Your task to perform on an android device: read, delete, or share a saved page in the chrome app Image 0: 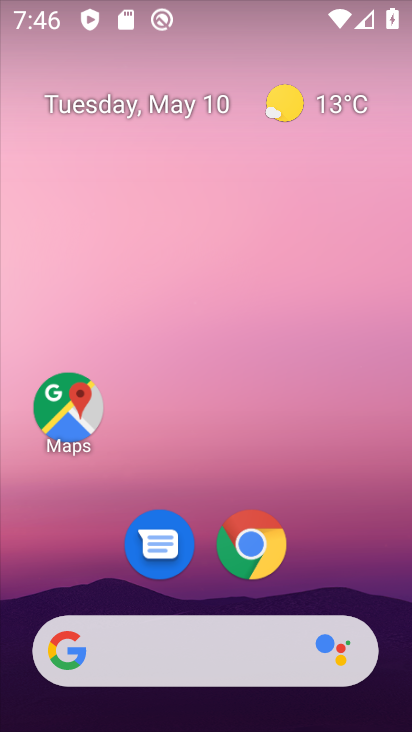
Step 0: click (259, 535)
Your task to perform on an android device: read, delete, or share a saved page in the chrome app Image 1: 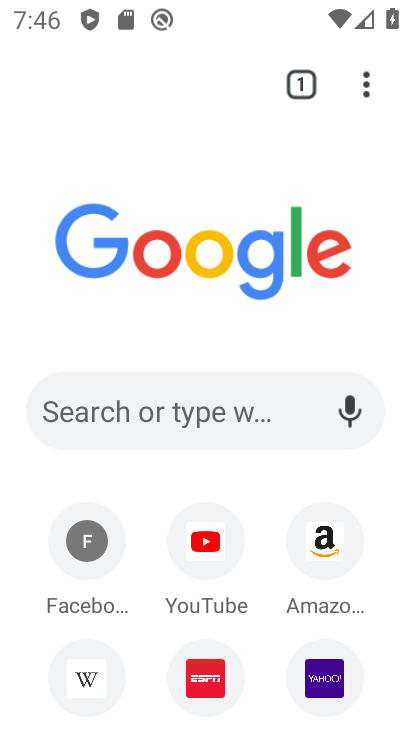
Step 1: click (366, 77)
Your task to perform on an android device: read, delete, or share a saved page in the chrome app Image 2: 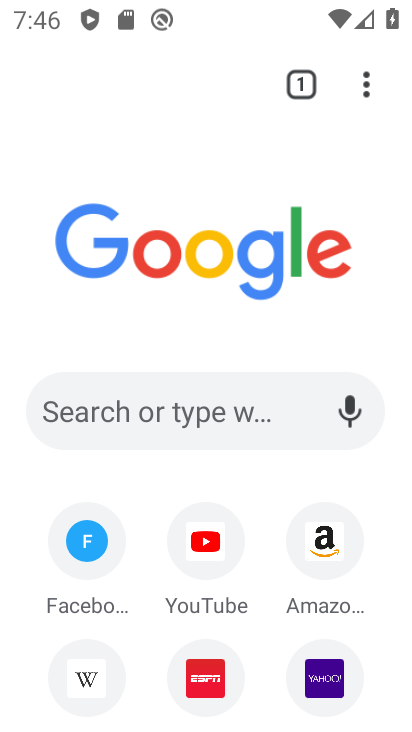
Step 2: click (373, 83)
Your task to perform on an android device: read, delete, or share a saved page in the chrome app Image 3: 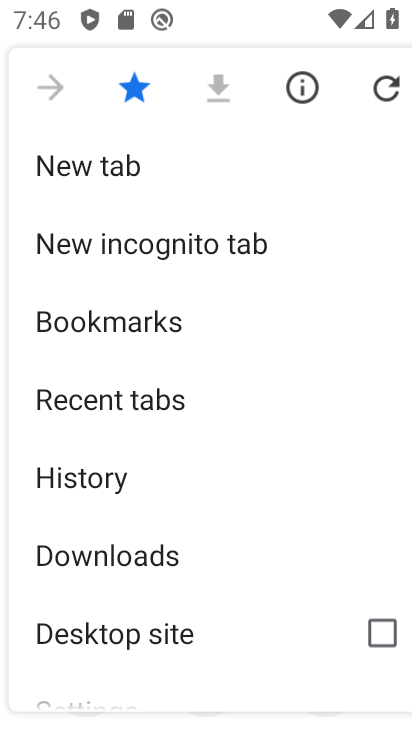
Step 3: click (70, 557)
Your task to perform on an android device: read, delete, or share a saved page in the chrome app Image 4: 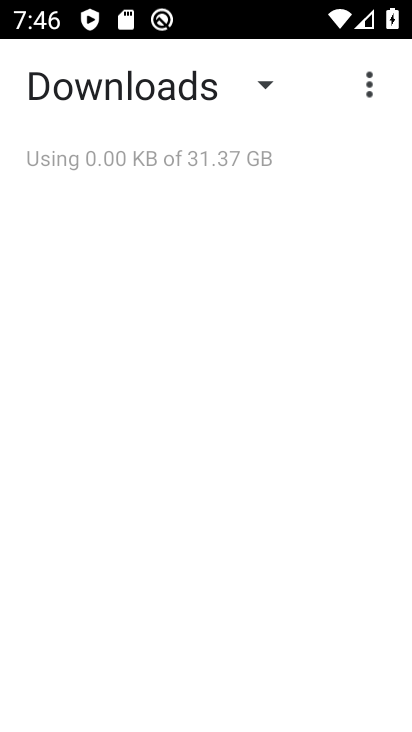
Step 4: click (271, 87)
Your task to perform on an android device: read, delete, or share a saved page in the chrome app Image 5: 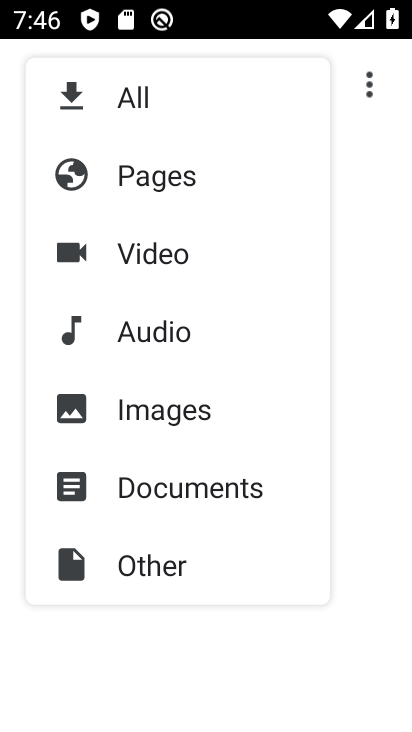
Step 5: click (132, 176)
Your task to perform on an android device: read, delete, or share a saved page in the chrome app Image 6: 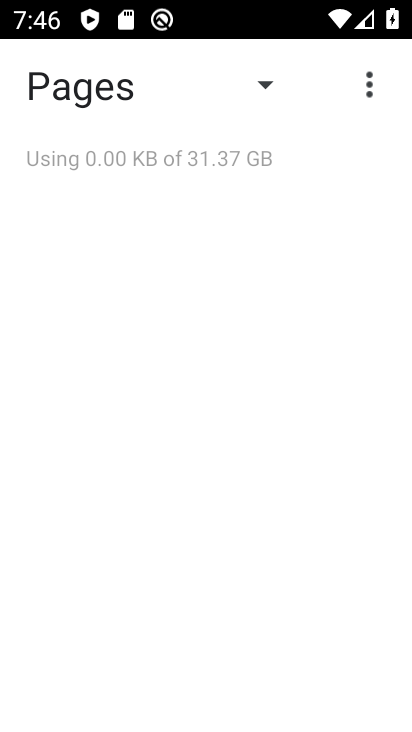
Step 6: task complete